Your task to perform on an android device: What's on my calendar tomorrow? Image 0: 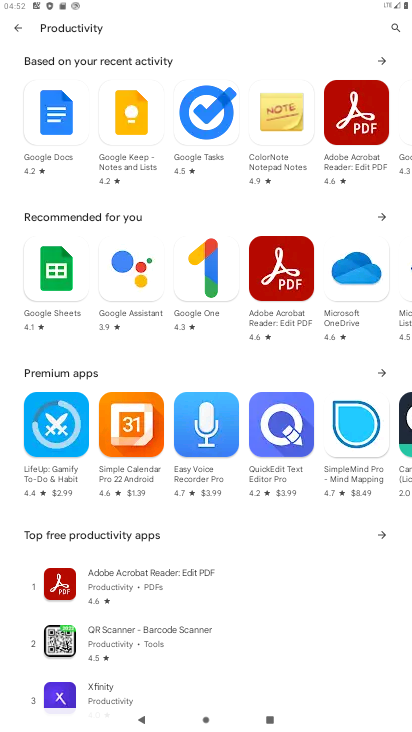
Step 0: press home button
Your task to perform on an android device: What's on my calendar tomorrow? Image 1: 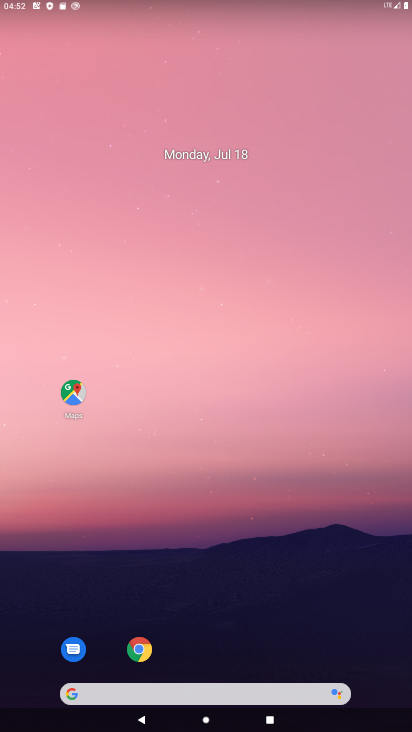
Step 1: click (192, 159)
Your task to perform on an android device: What's on my calendar tomorrow? Image 2: 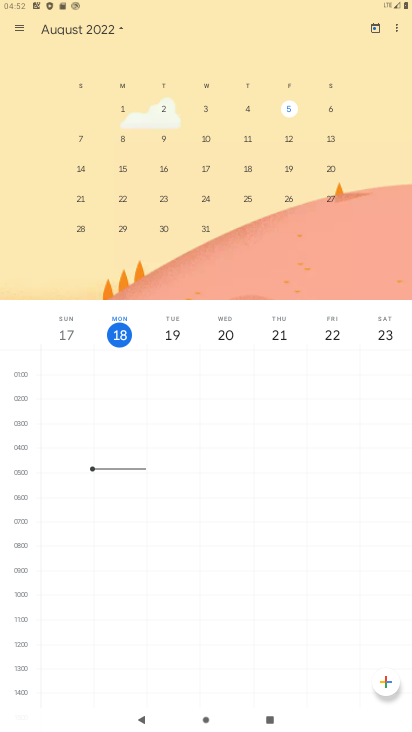
Step 2: click (174, 325)
Your task to perform on an android device: What's on my calendar tomorrow? Image 3: 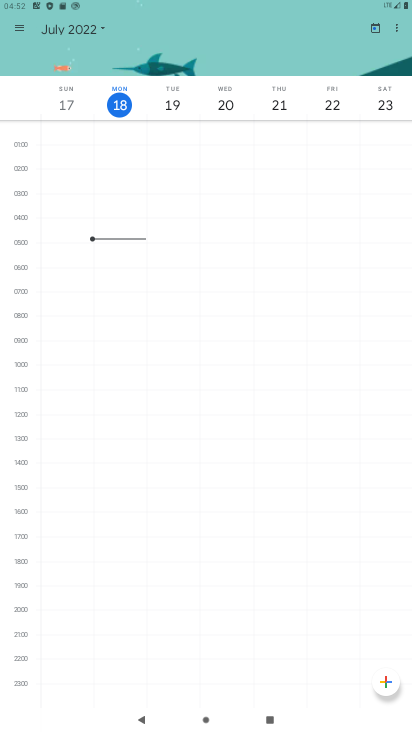
Step 3: click (177, 110)
Your task to perform on an android device: What's on my calendar tomorrow? Image 4: 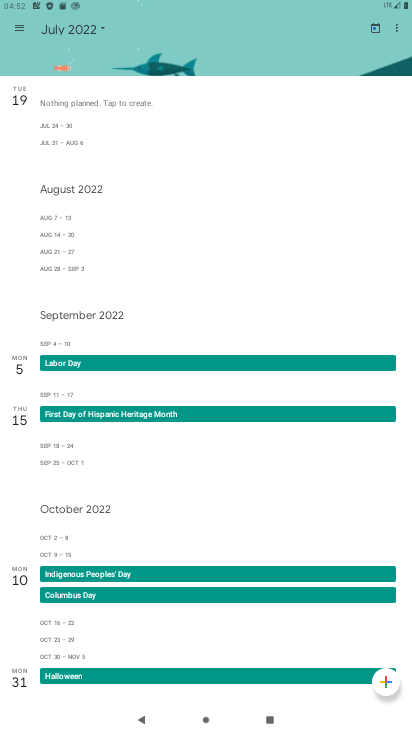
Step 4: task complete